Your task to perform on an android device: allow cookies in the chrome app Image 0: 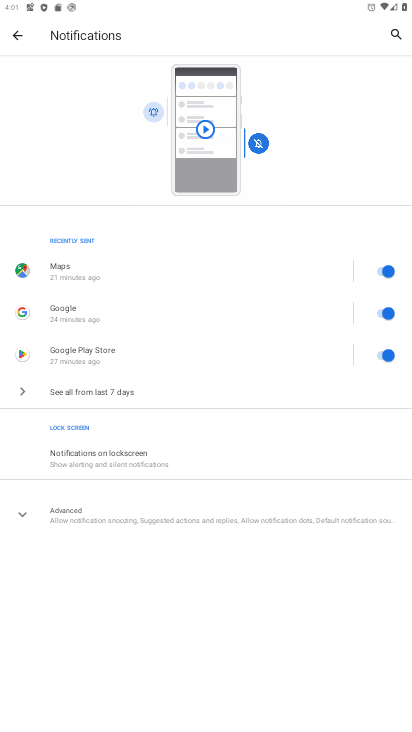
Step 0: press home button
Your task to perform on an android device: allow cookies in the chrome app Image 1: 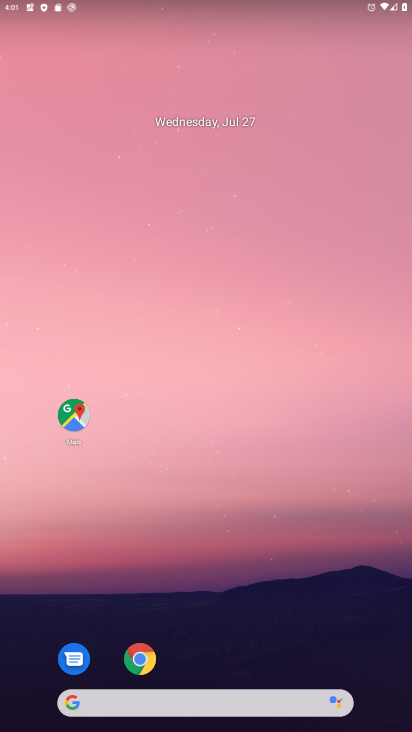
Step 1: click (142, 654)
Your task to perform on an android device: allow cookies in the chrome app Image 2: 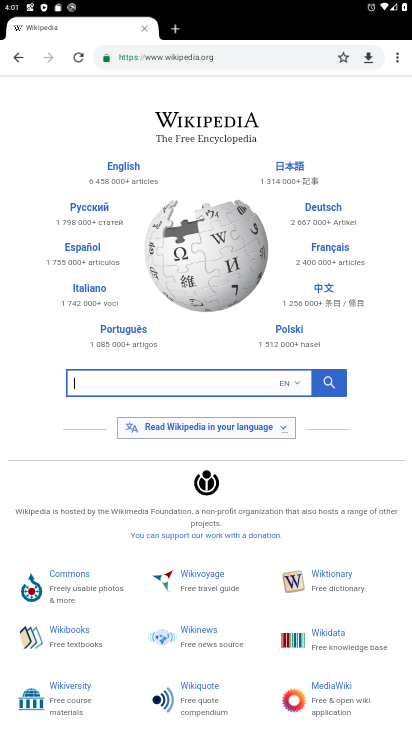
Step 2: click (396, 54)
Your task to perform on an android device: allow cookies in the chrome app Image 3: 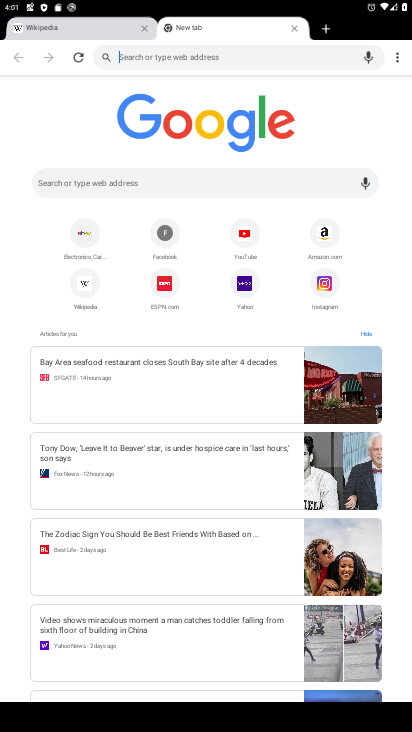
Step 3: click (392, 54)
Your task to perform on an android device: allow cookies in the chrome app Image 4: 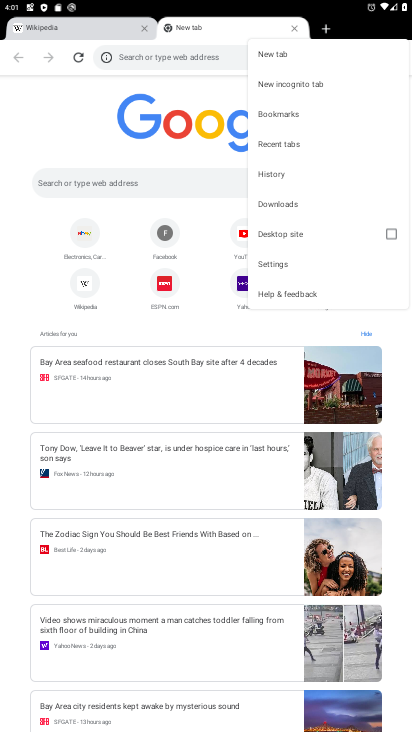
Step 4: click (278, 260)
Your task to perform on an android device: allow cookies in the chrome app Image 5: 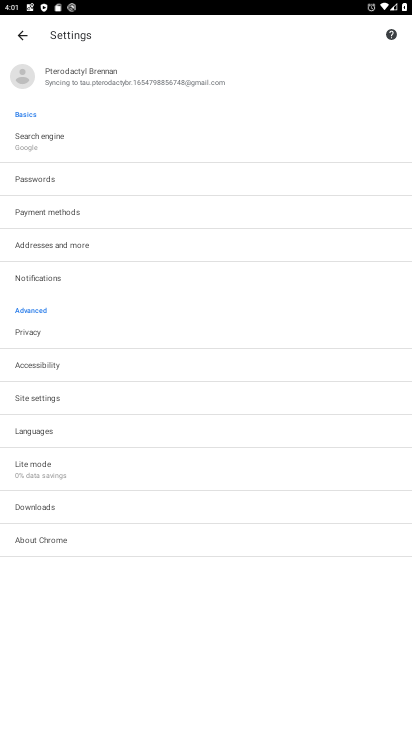
Step 5: click (56, 393)
Your task to perform on an android device: allow cookies in the chrome app Image 6: 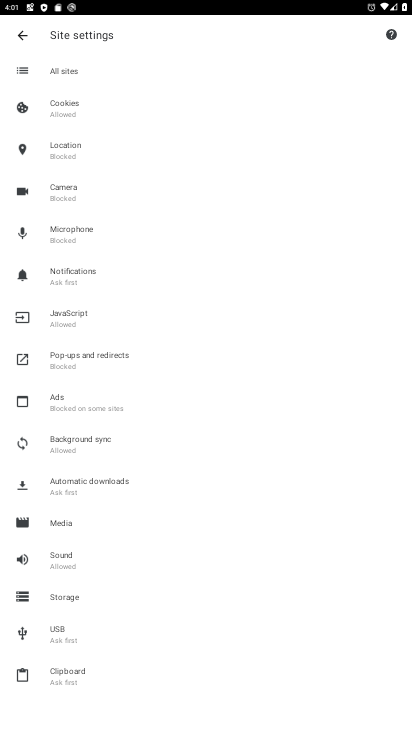
Step 6: click (81, 103)
Your task to perform on an android device: allow cookies in the chrome app Image 7: 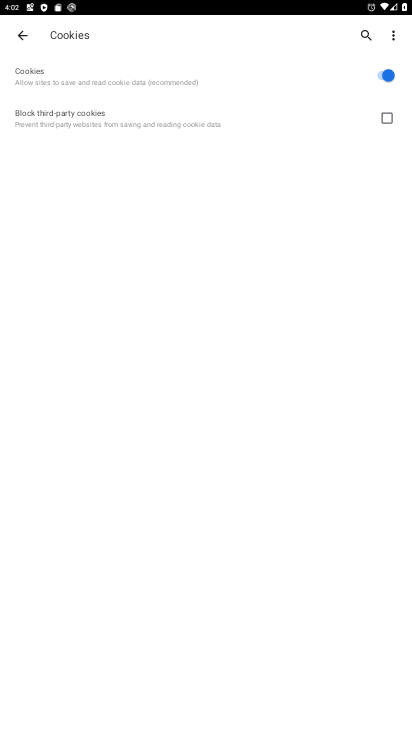
Step 7: task complete